Your task to perform on an android device: What is the recent news? Image 0: 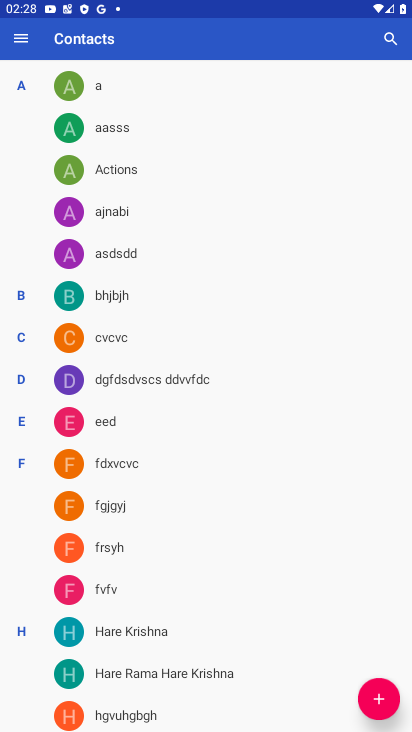
Step 0: press home button
Your task to perform on an android device: What is the recent news? Image 1: 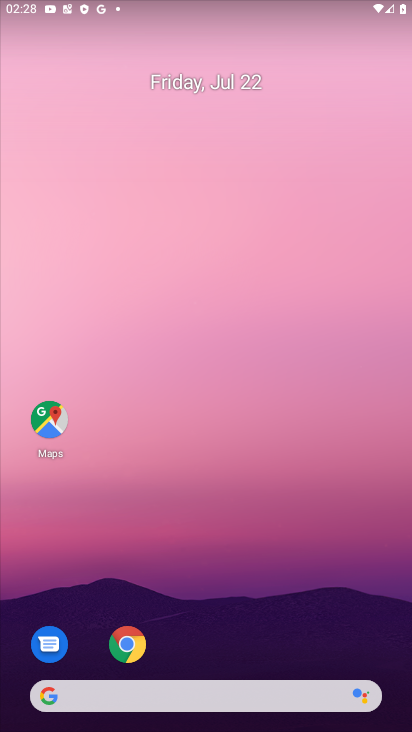
Step 1: click (211, 703)
Your task to perform on an android device: What is the recent news? Image 2: 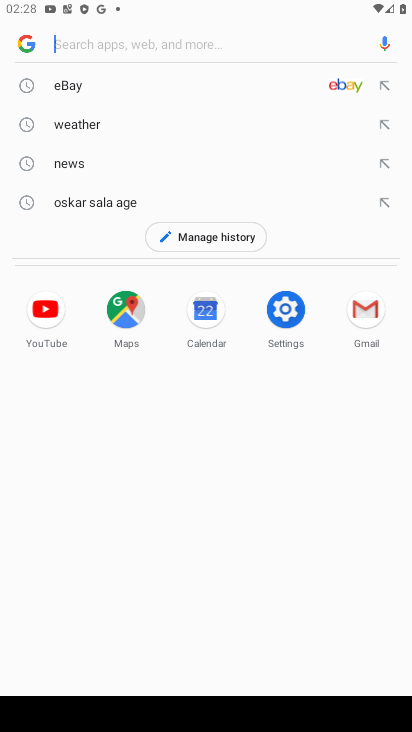
Step 2: type "recent news"
Your task to perform on an android device: What is the recent news? Image 3: 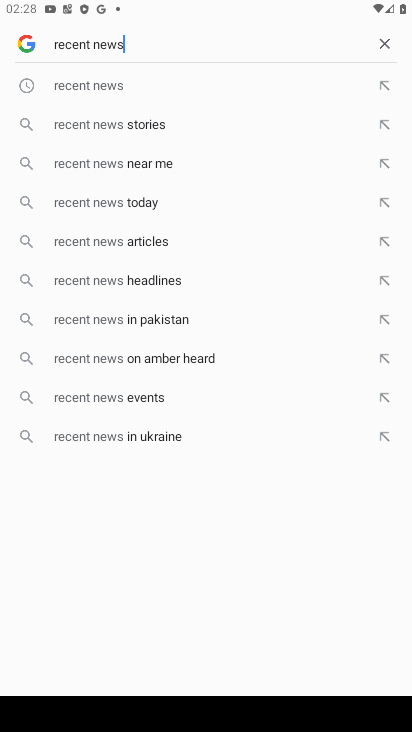
Step 3: click (164, 86)
Your task to perform on an android device: What is the recent news? Image 4: 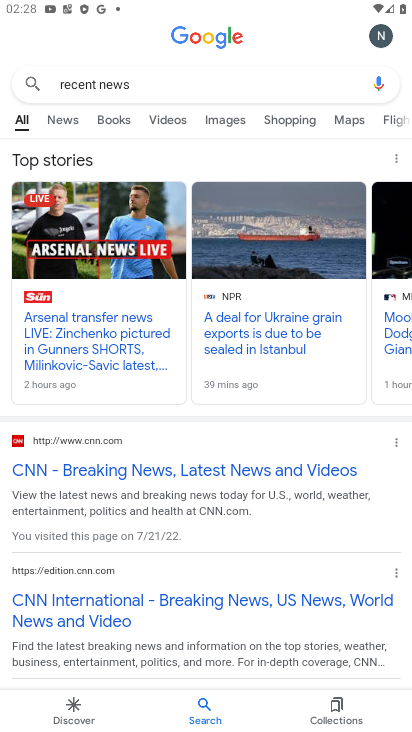
Step 4: task complete